Your task to perform on an android device: Open battery settings Image 0: 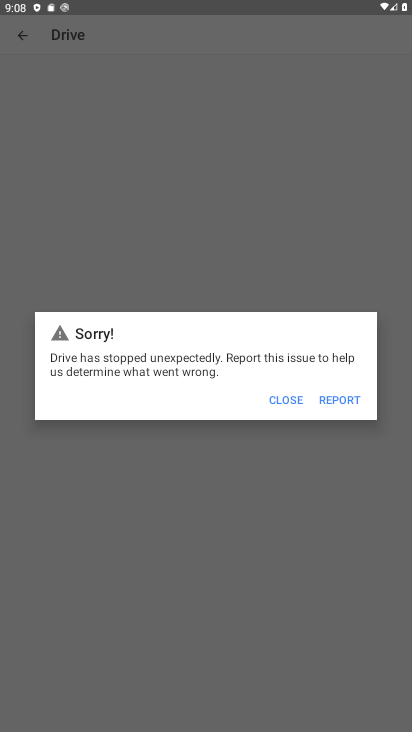
Step 0: press home button
Your task to perform on an android device: Open battery settings Image 1: 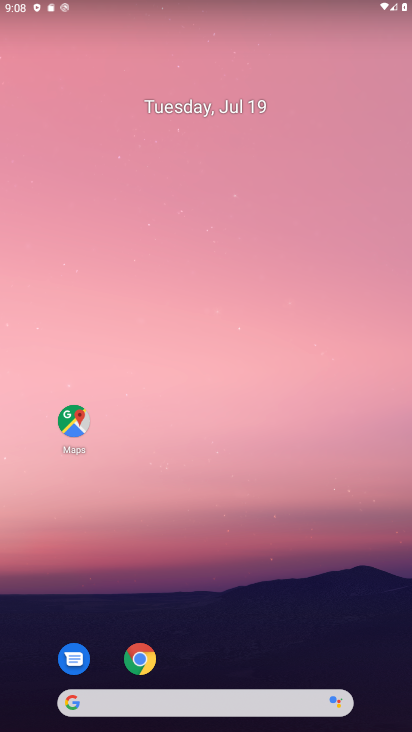
Step 1: drag from (282, 622) to (243, 254)
Your task to perform on an android device: Open battery settings Image 2: 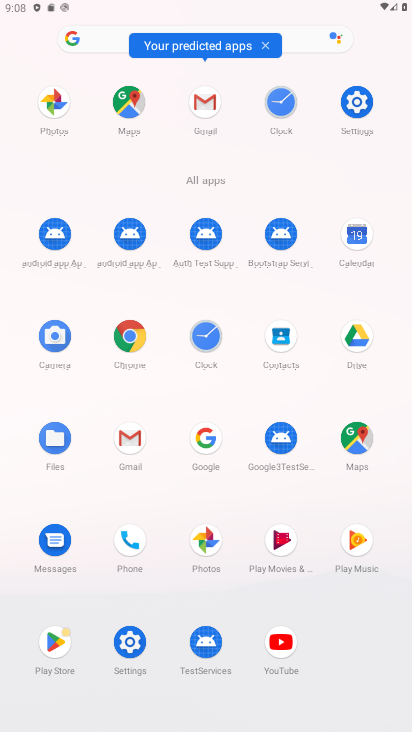
Step 2: click (355, 108)
Your task to perform on an android device: Open battery settings Image 3: 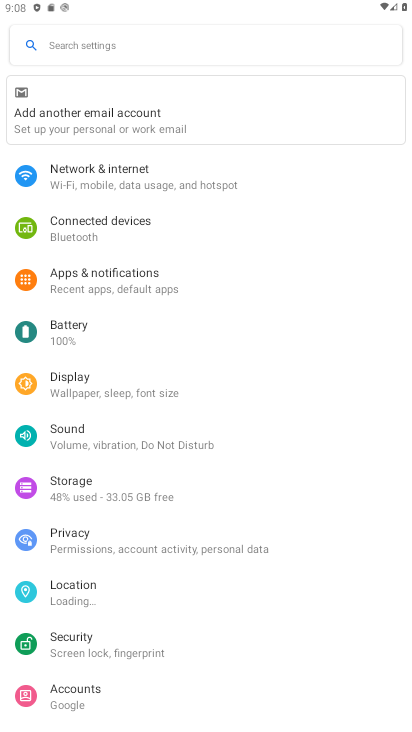
Step 3: click (87, 322)
Your task to perform on an android device: Open battery settings Image 4: 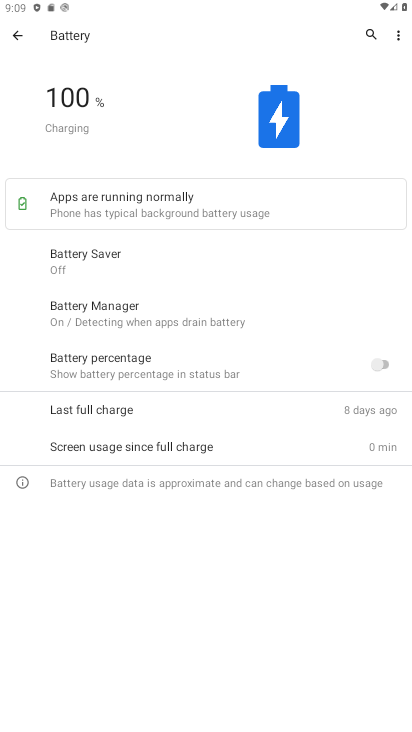
Step 4: task complete